Your task to perform on an android device: When is my next meeting? Image 0: 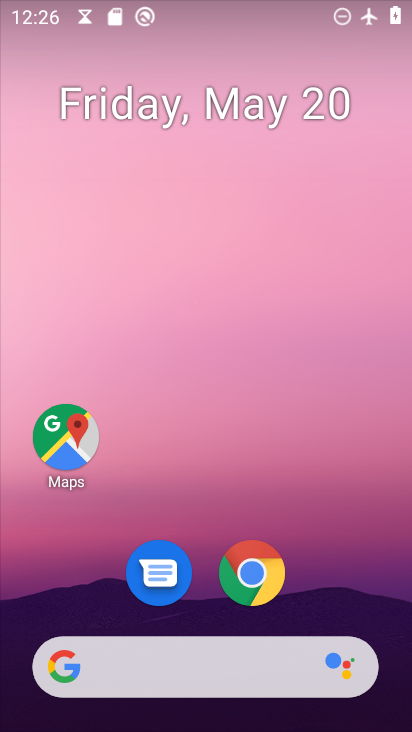
Step 0: drag from (324, 593) to (355, 41)
Your task to perform on an android device: When is my next meeting? Image 1: 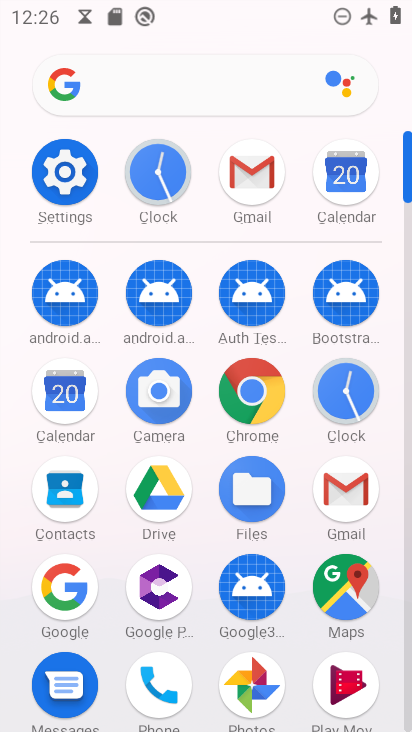
Step 1: click (57, 393)
Your task to perform on an android device: When is my next meeting? Image 2: 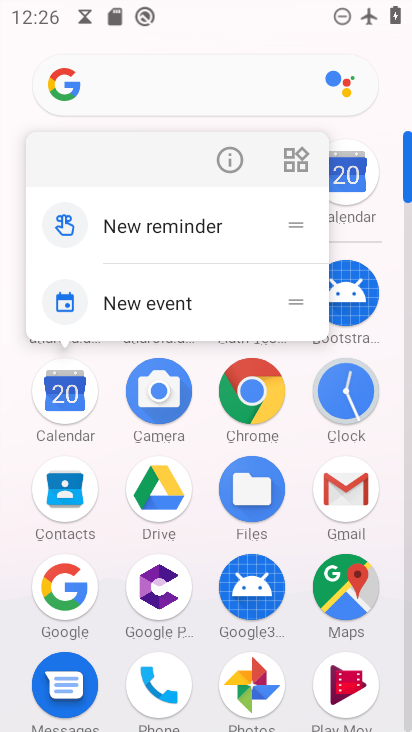
Step 2: click (57, 393)
Your task to perform on an android device: When is my next meeting? Image 3: 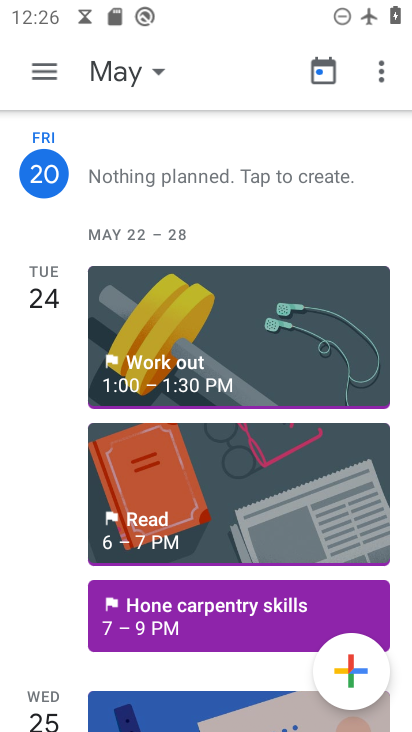
Step 3: click (99, 62)
Your task to perform on an android device: When is my next meeting? Image 4: 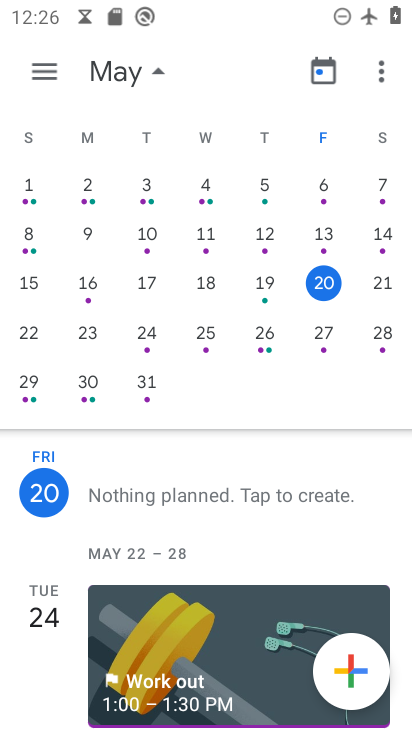
Step 4: click (308, 283)
Your task to perform on an android device: When is my next meeting? Image 5: 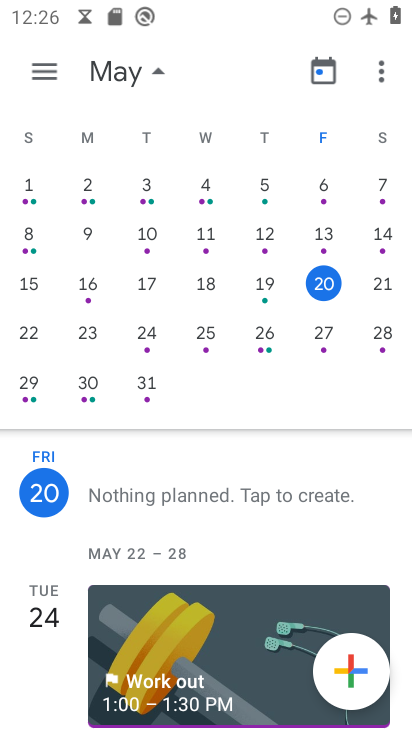
Step 5: task complete